Your task to perform on an android device: turn on airplane mode Image 0: 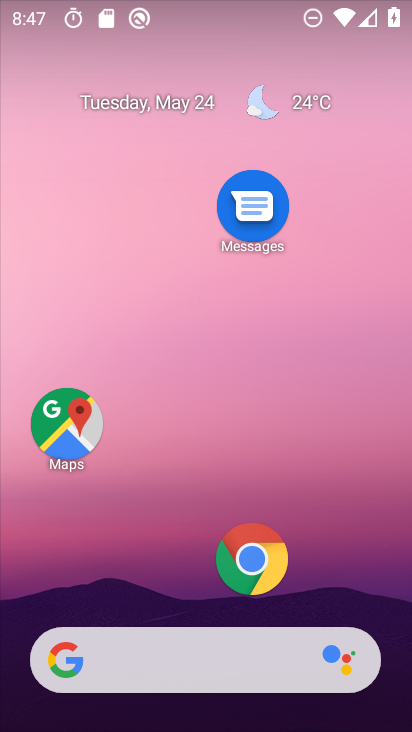
Step 0: drag from (166, 577) to (175, 268)
Your task to perform on an android device: turn on airplane mode Image 1: 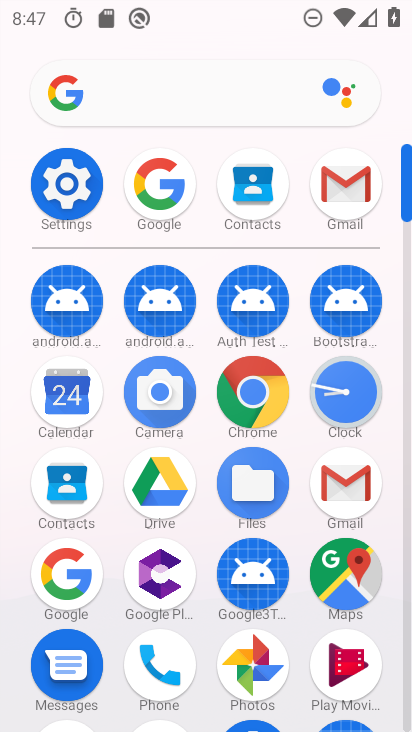
Step 1: click (73, 187)
Your task to perform on an android device: turn on airplane mode Image 2: 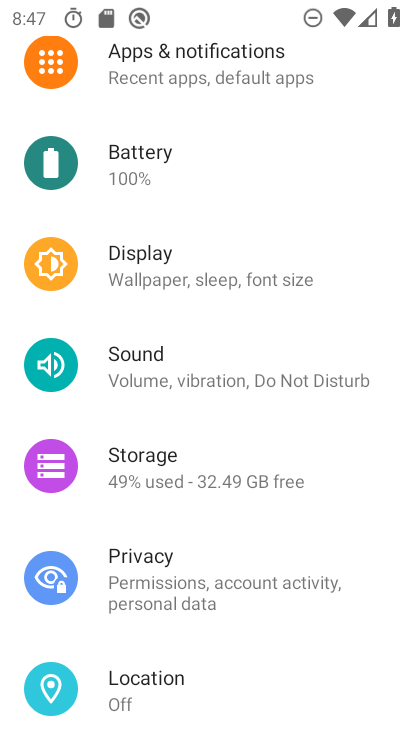
Step 2: drag from (212, 71) to (279, 391)
Your task to perform on an android device: turn on airplane mode Image 3: 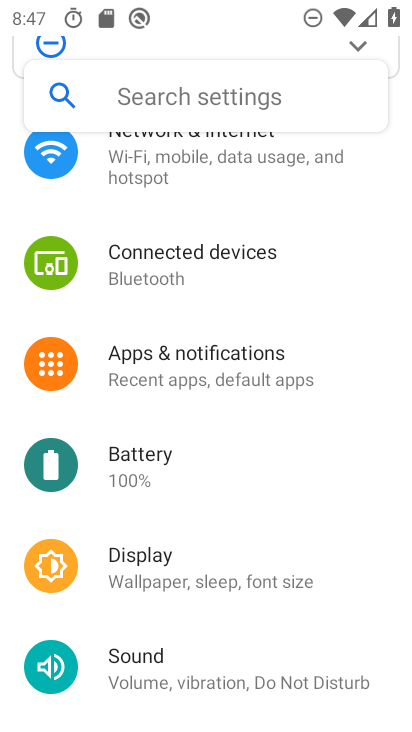
Step 3: drag from (210, 185) to (240, 378)
Your task to perform on an android device: turn on airplane mode Image 4: 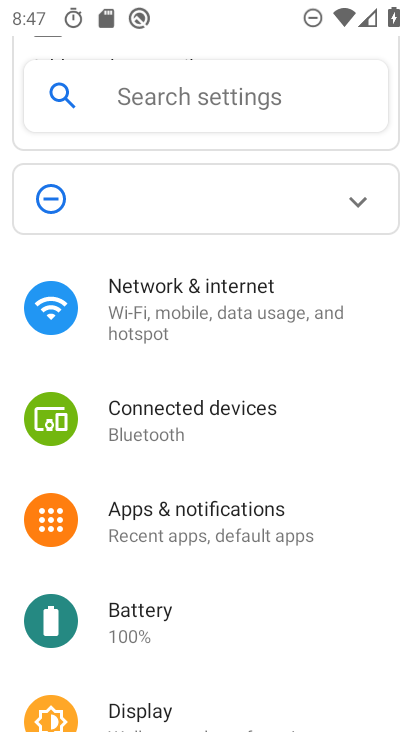
Step 4: click (212, 345)
Your task to perform on an android device: turn on airplane mode Image 5: 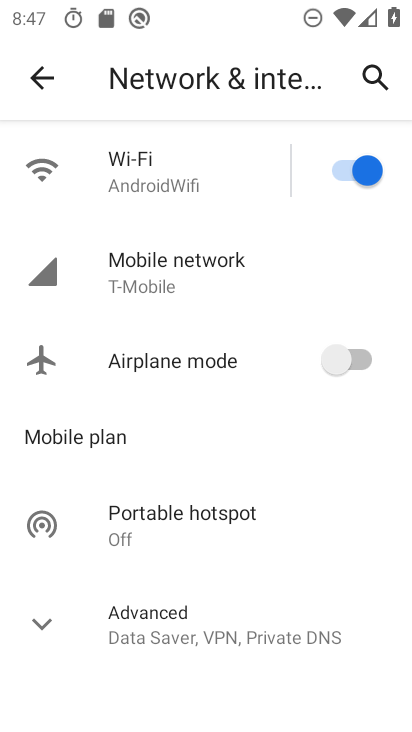
Step 5: click (361, 361)
Your task to perform on an android device: turn on airplane mode Image 6: 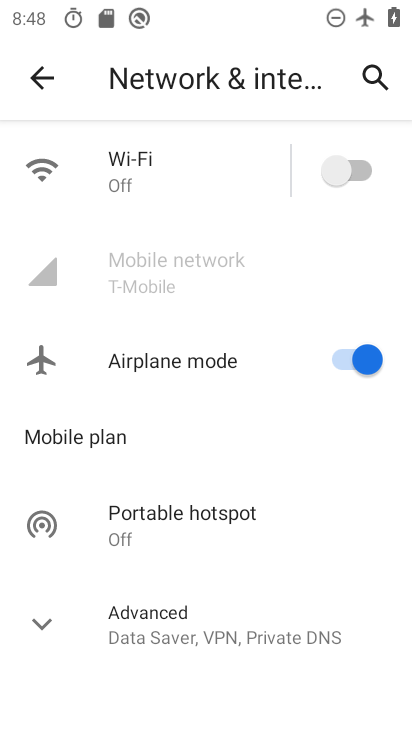
Step 6: task complete